Your task to perform on an android device: Go to Android settings Image 0: 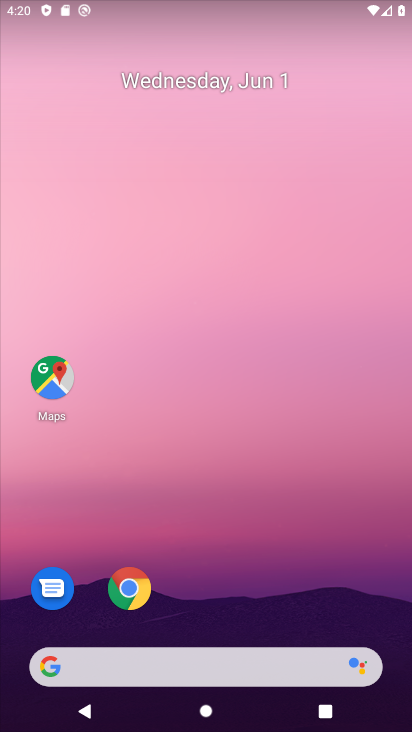
Step 0: drag from (274, 590) to (219, 177)
Your task to perform on an android device: Go to Android settings Image 1: 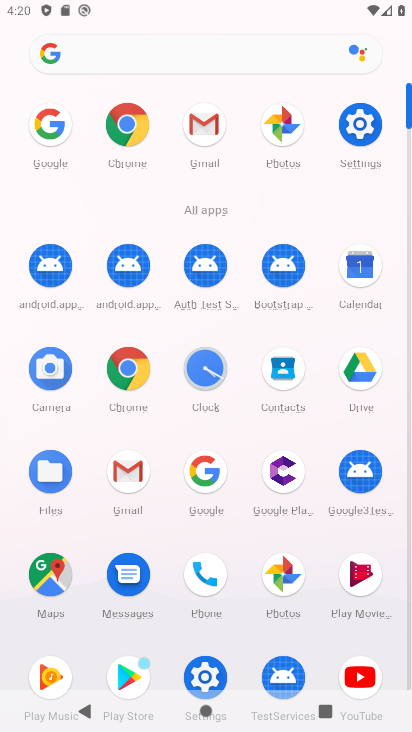
Step 1: click (355, 123)
Your task to perform on an android device: Go to Android settings Image 2: 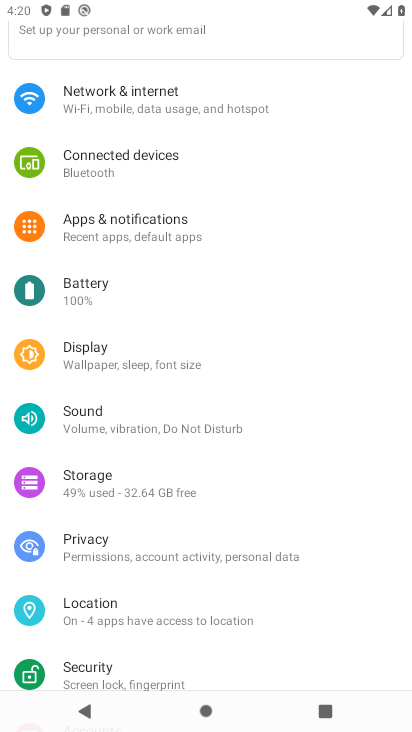
Step 2: task complete